Your task to perform on an android device: Search for vegetarian restaurants on Maps Image 0: 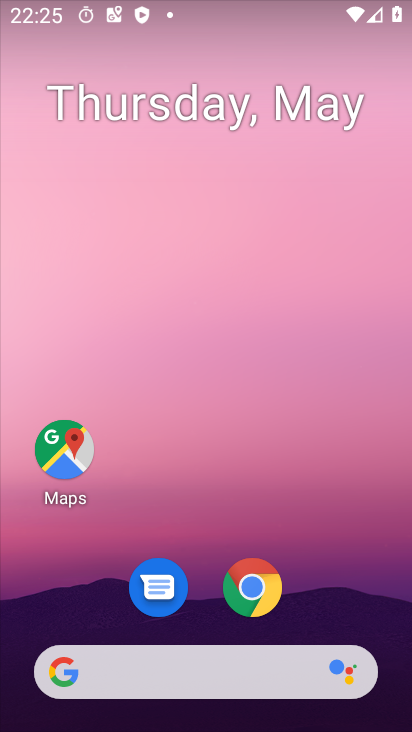
Step 0: click (61, 454)
Your task to perform on an android device: Search for vegetarian restaurants on Maps Image 1: 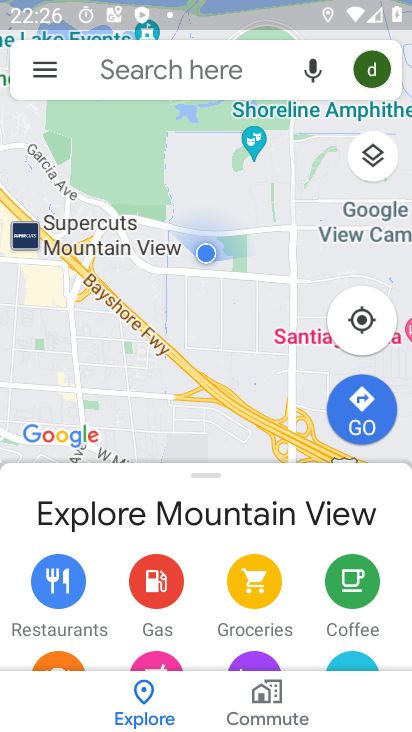
Step 1: click (111, 74)
Your task to perform on an android device: Search for vegetarian restaurants on Maps Image 2: 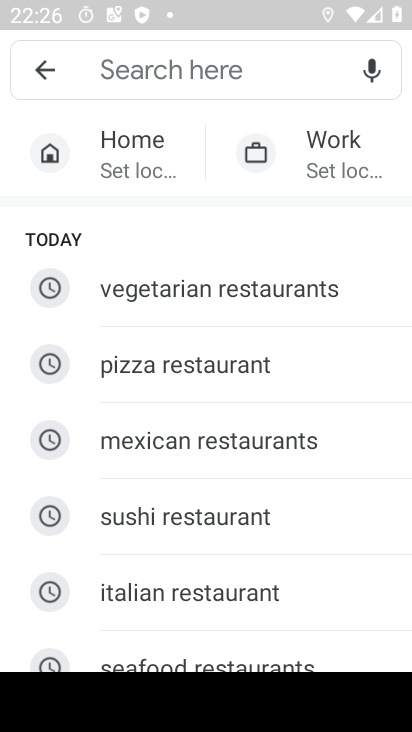
Step 2: type "vegetarian restaurant"
Your task to perform on an android device: Search for vegetarian restaurants on Maps Image 3: 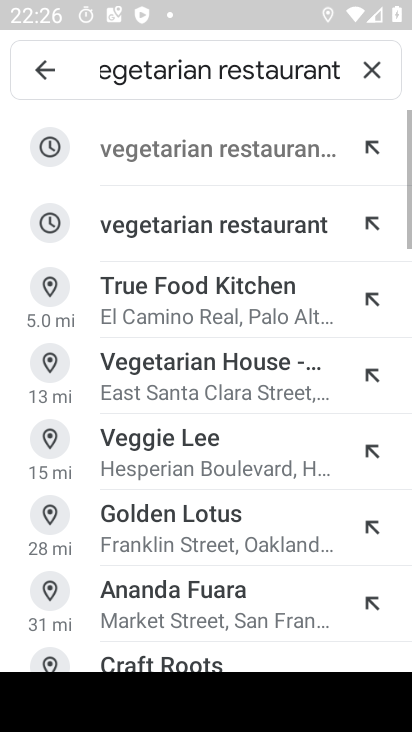
Step 3: click (166, 152)
Your task to perform on an android device: Search for vegetarian restaurants on Maps Image 4: 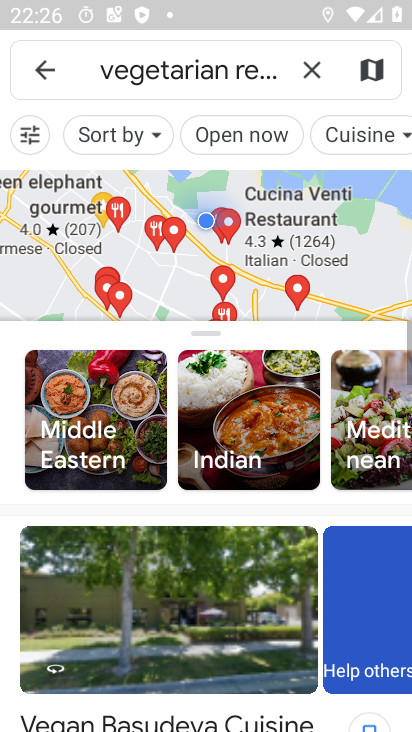
Step 4: task complete